Your task to perform on an android device: change notification settings in the gmail app Image 0: 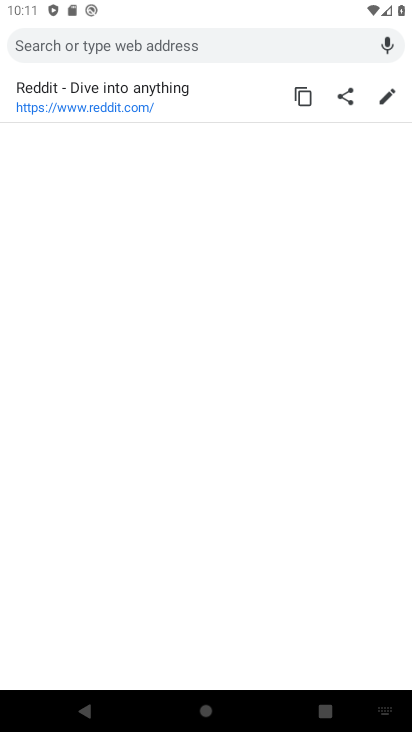
Step 0: press home button
Your task to perform on an android device: change notification settings in the gmail app Image 1: 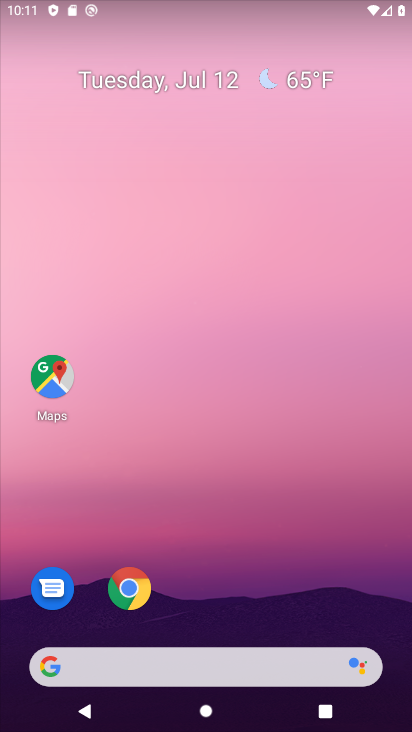
Step 1: drag from (43, 691) to (163, 29)
Your task to perform on an android device: change notification settings in the gmail app Image 2: 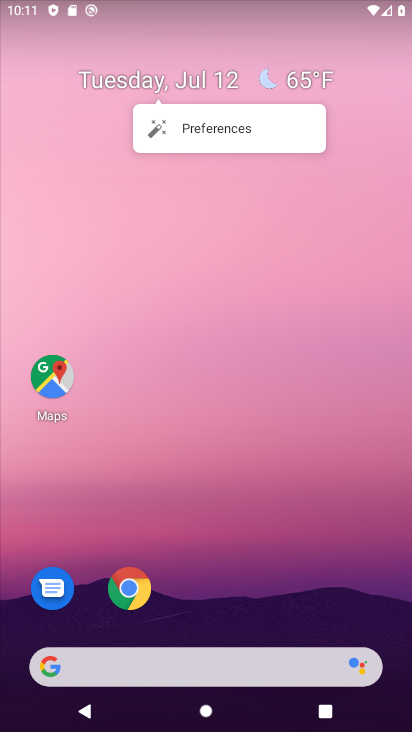
Step 2: drag from (32, 713) to (168, 3)
Your task to perform on an android device: change notification settings in the gmail app Image 3: 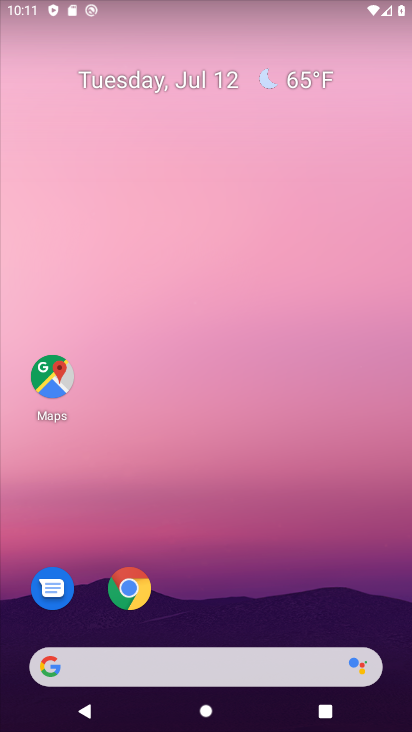
Step 3: drag from (37, 708) to (216, 5)
Your task to perform on an android device: change notification settings in the gmail app Image 4: 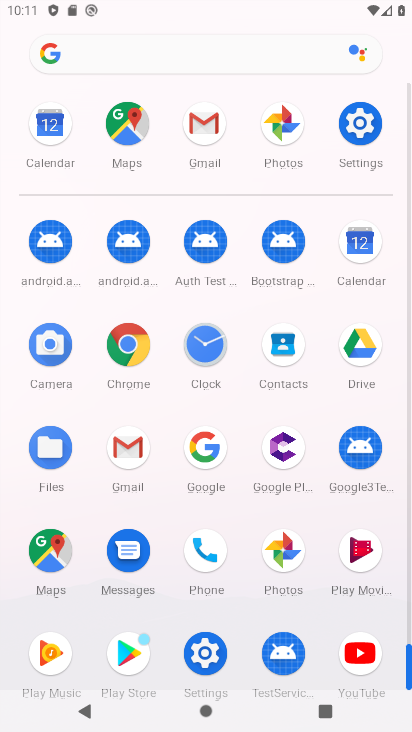
Step 4: click (118, 452)
Your task to perform on an android device: change notification settings in the gmail app Image 5: 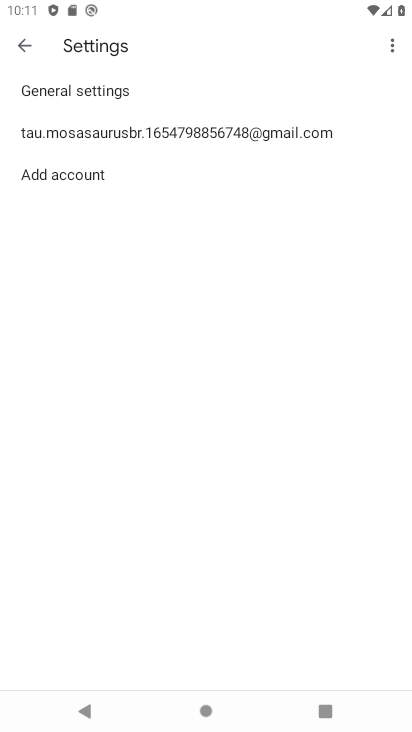
Step 5: click (19, 44)
Your task to perform on an android device: change notification settings in the gmail app Image 6: 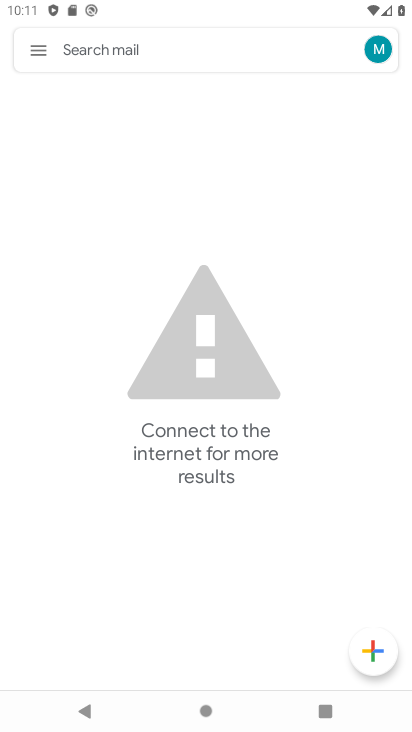
Step 6: click (31, 50)
Your task to perform on an android device: change notification settings in the gmail app Image 7: 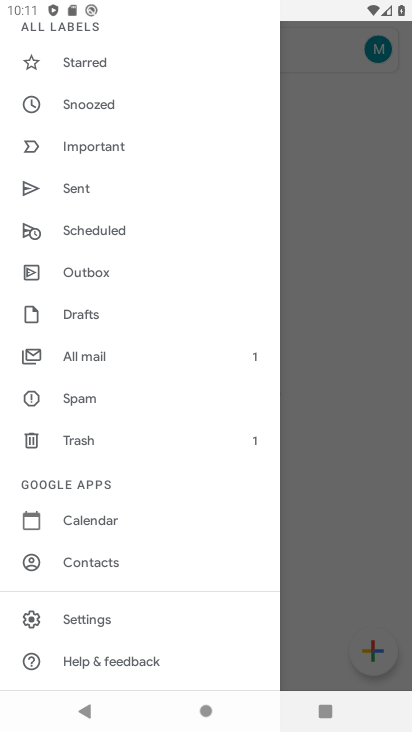
Step 7: click (102, 623)
Your task to perform on an android device: change notification settings in the gmail app Image 8: 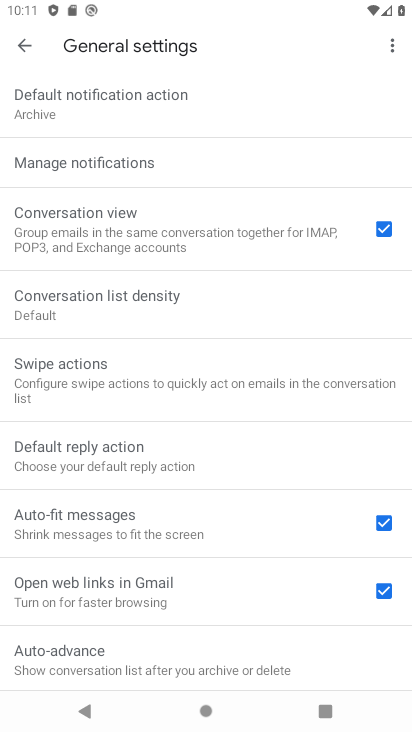
Step 8: click (94, 172)
Your task to perform on an android device: change notification settings in the gmail app Image 9: 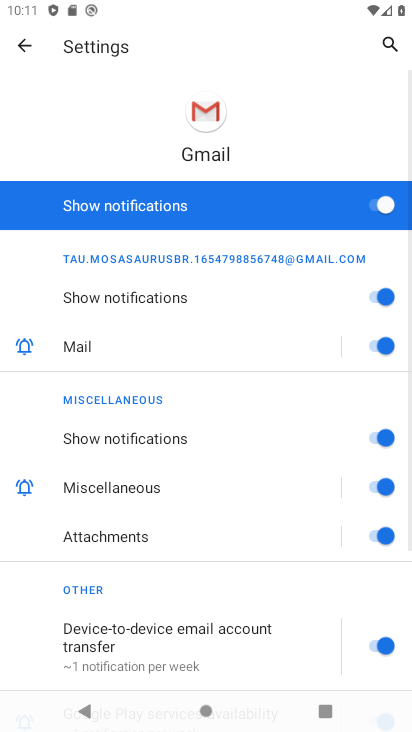
Step 9: click (377, 204)
Your task to perform on an android device: change notification settings in the gmail app Image 10: 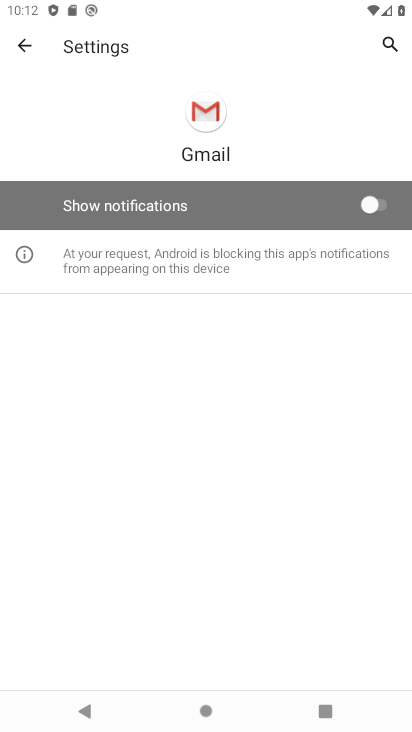
Step 10: task complete